Your task to perform on an android device: turn on notifications settings in the gmail app Image 0: 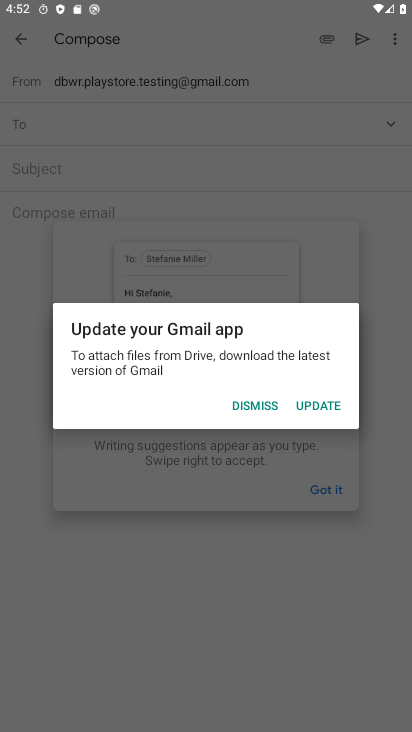
Step 0: press home button
Your task to perform on an android device: turn on notifications settings in the gmail app Image 1: 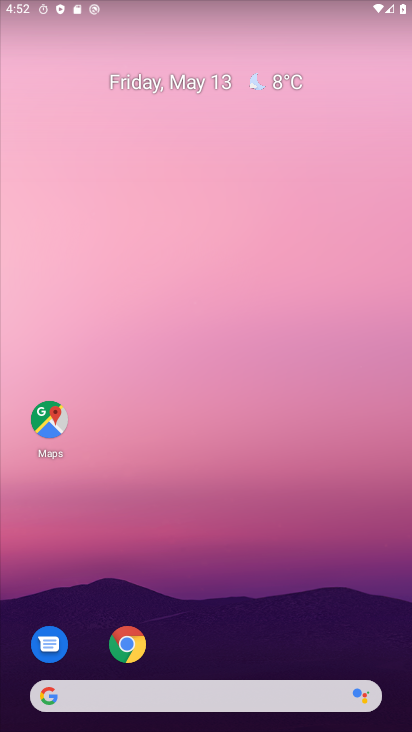
Step 1: drag from (250, 626) to (275, 119)
Your task to perform on an android device: turn on notifications settings in the gmail app Image 2: 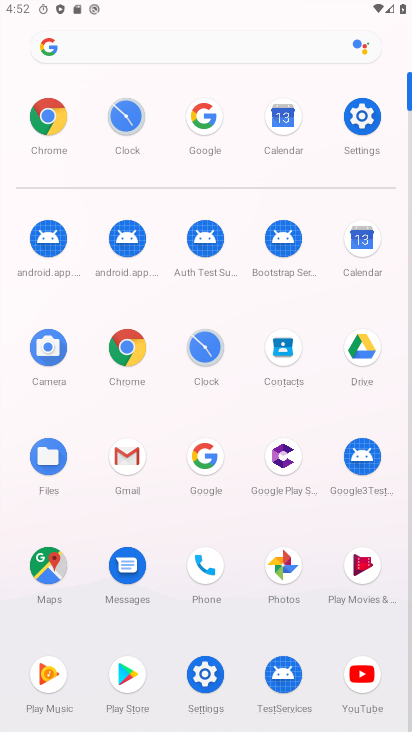
Step 2: click (132, 469)
Your task to perform on an android device: turn on notifications settings in the gmail app Image 3: 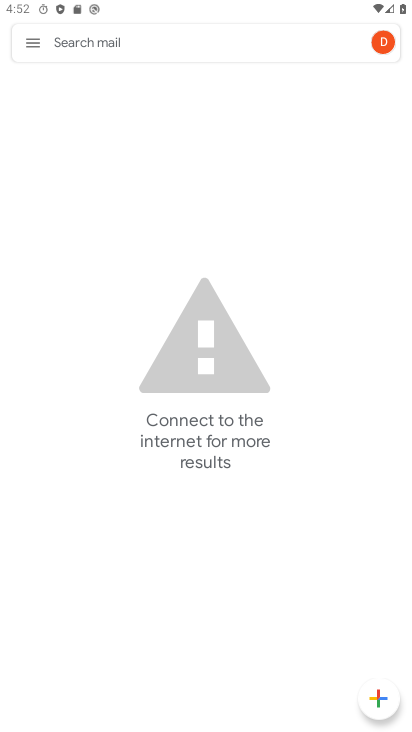
Step 3: click (22, 49)
Your task to perform on an android device: turn on notifications settings in the gmail app Image 4: 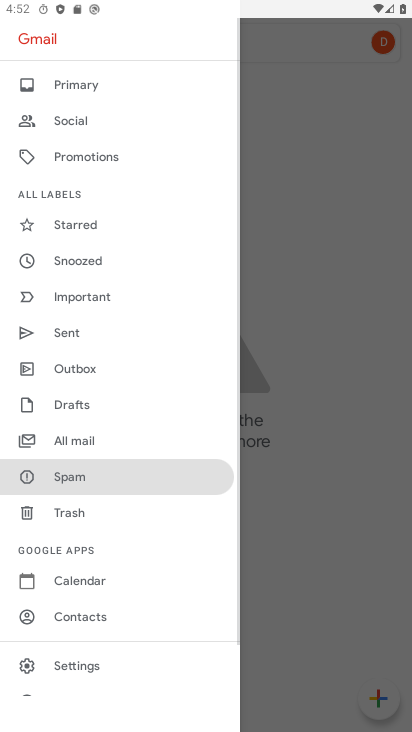
Step 4: click (81, 649)
Your task to perform on an android device: turn on notifications settings in the gmail app Image 5: 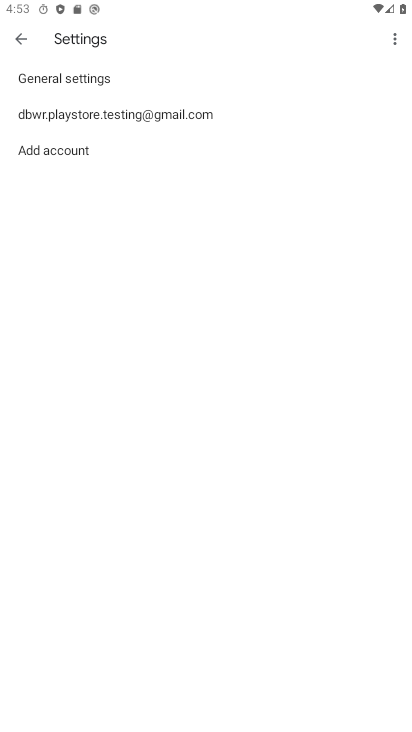
Step 5: click (131, 112)
Your task to perform on an android device: turn on notifications settings in the gmail app Image 6: 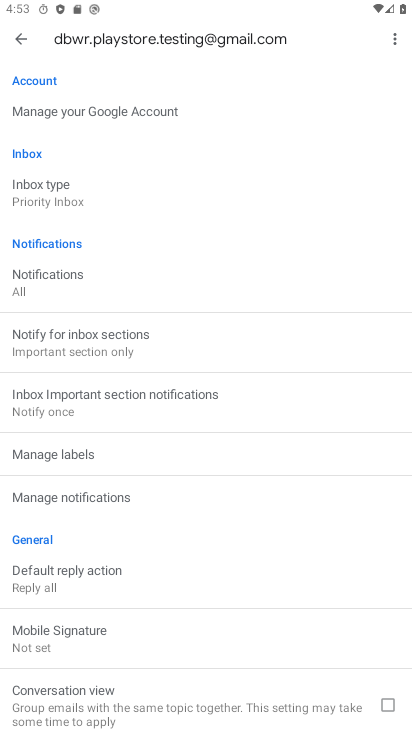
Step 6: click (107, 272)
Your task to perform on an android device: turn on notifications settings in the gmail app Image 7: 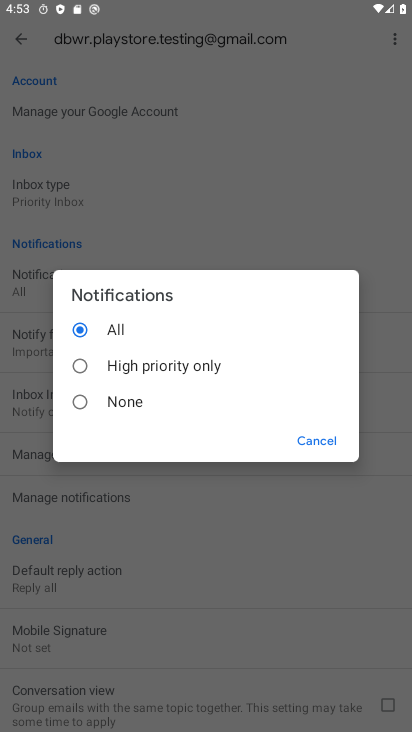
Step 7: task complete